Your task to perform on an android device: turn off smart reply in the gmail app Image 0: 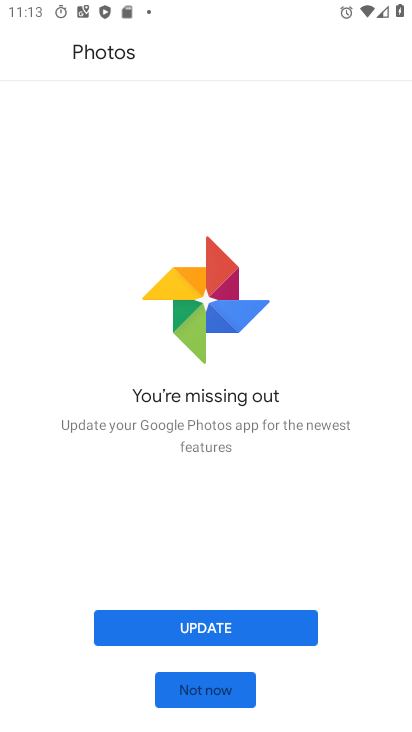
Step 0: press home button
Your task to perform on an android device: turn off smart reply in the gmail app Image 1: 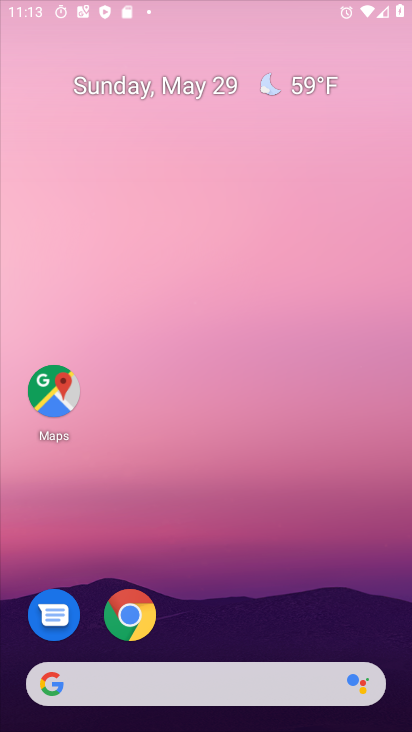
Step 1: drag from (254, 612) to (361, 57)
Your task to perform on an android device: turn off smart reply in the gmail app Image 2: 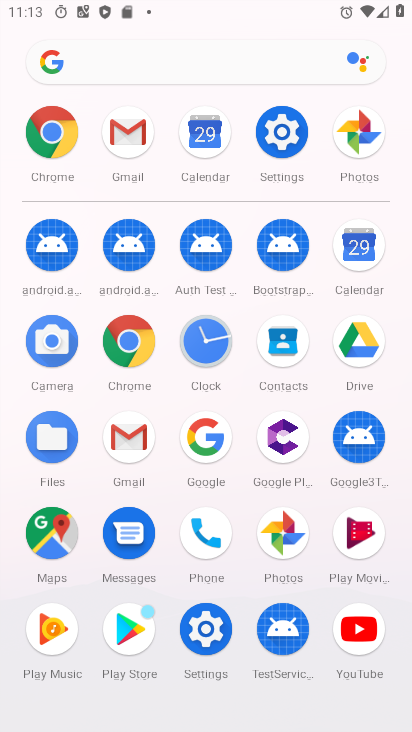
Step 2: click (129, 441)
Your task to perform on an android device: turn off smart reply in the gmail app Image 3: 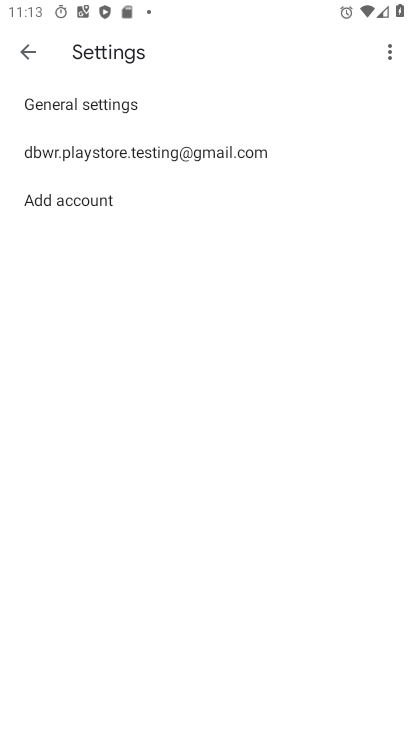
Step 3: click (105, 147)
Your task to perform on an android device: turn off smart reply in the gmail app Image 4: 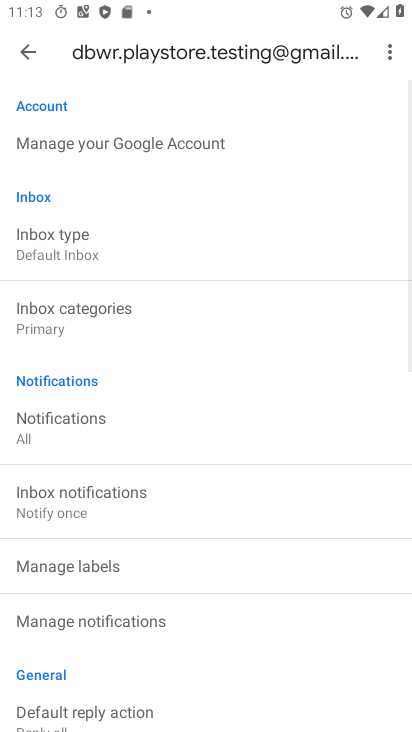
Step 4: task complete